Your task to perform on an android device: What's the weather? Image 0: 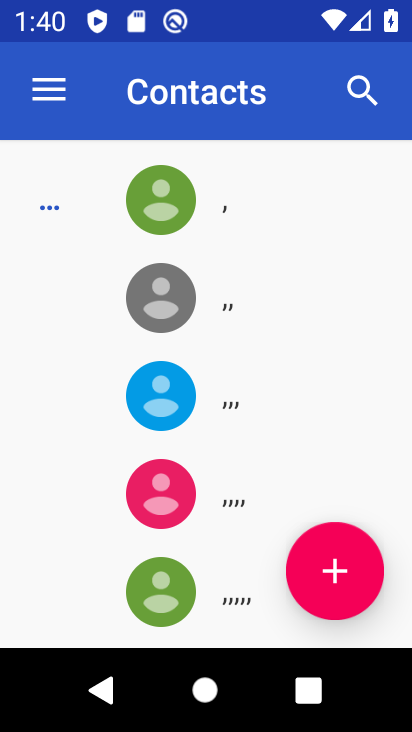
Step 0: press home button
Your task to perform on an android device: What's the weather? Image 1: 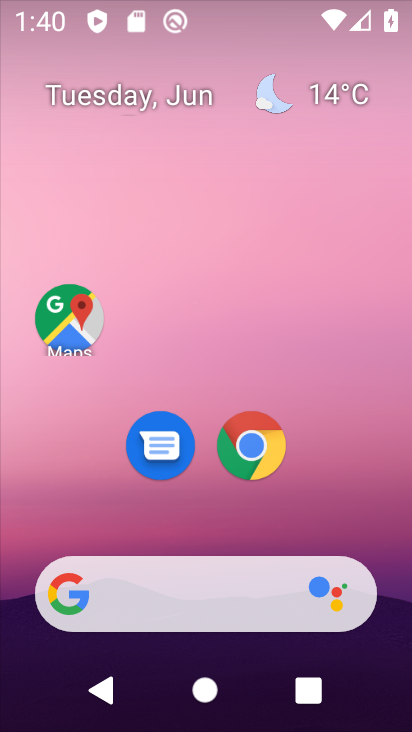
Step 1: drag from (358, 509) to (341, 91)
Your task to perform on an android device: What's the weather? Image 2: 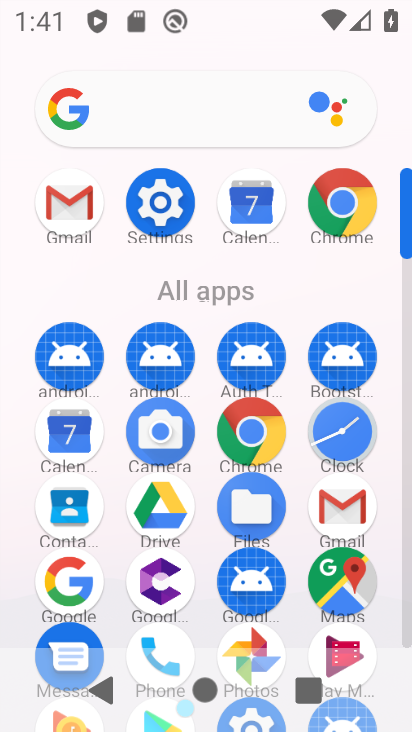
Step 2: drag from (296, 571) to (300, 242)
Your task to perform on an android device: What's the weather? Image 3: 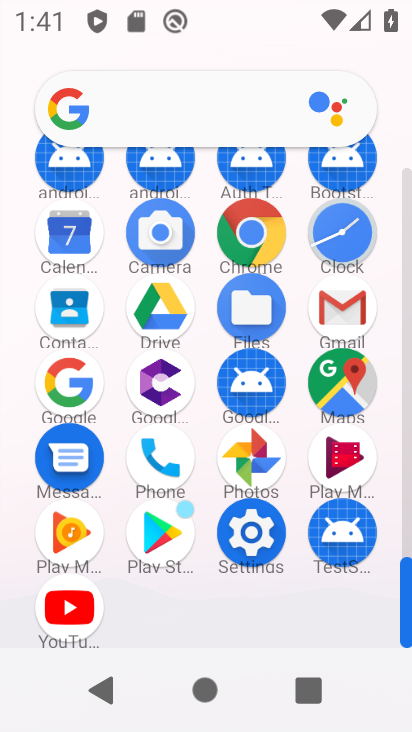
Step 3: drag from (282, 265) to (267, 563)
Your task to perform on an android device: What's the weather? Image 4: 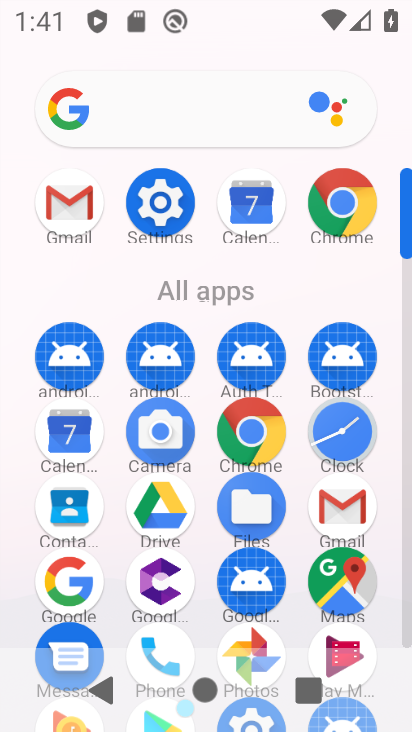
Step 4: click (250, 451)
Your task to perform on an android device: What's the weather? Image 5: 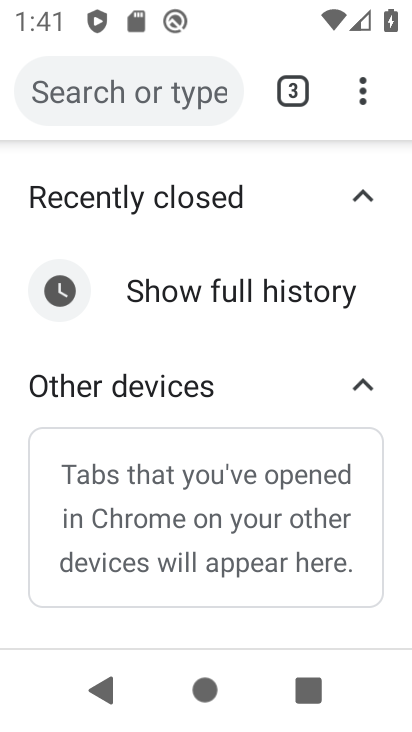
Step 5: click (174, 89)
Your task to perform on an android device: What's the weather? Image 6: 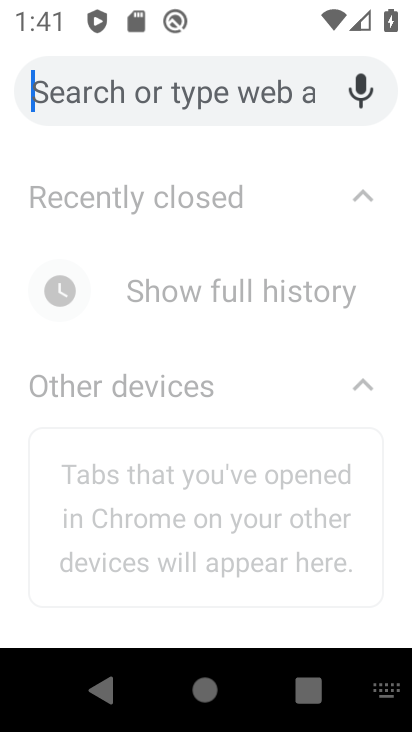
Step 6: type "what's the weather "
Your task to perform on an android device: What's the weather? Image 7: 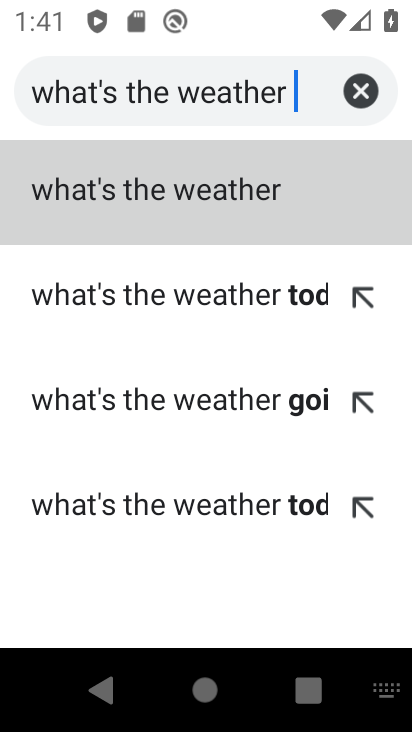
Step 7: click (136, 217)
Your task to perform on an android device: What's the weather? Image 8: 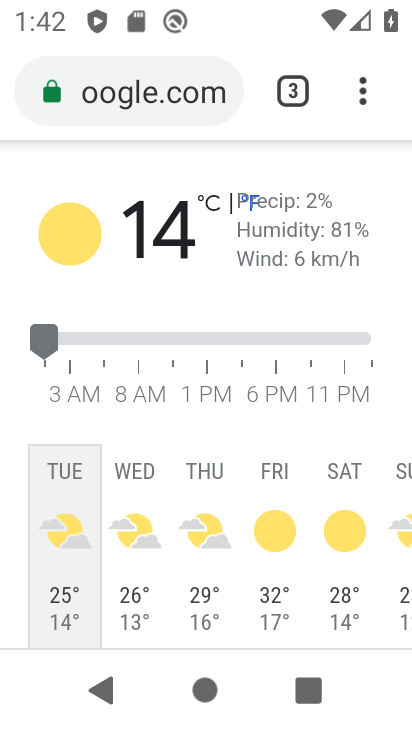
Step 8: task complete